Your task to perform on an android device: Go to network settings Image 0: 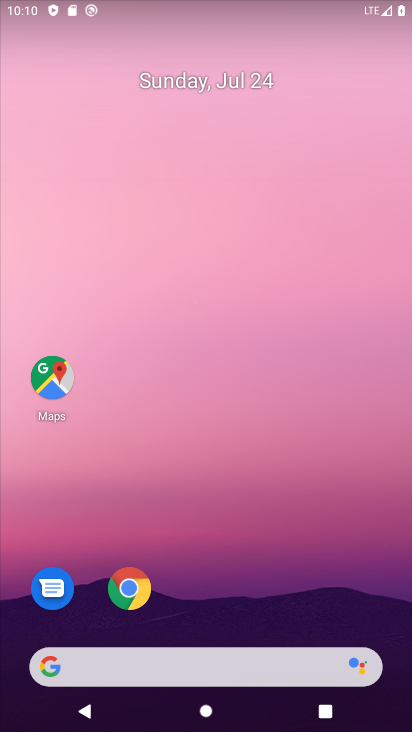
Step 0: drag from (252, 608) to (181, 63)
Your task to perform on an android device: Go to network settings Image 1: 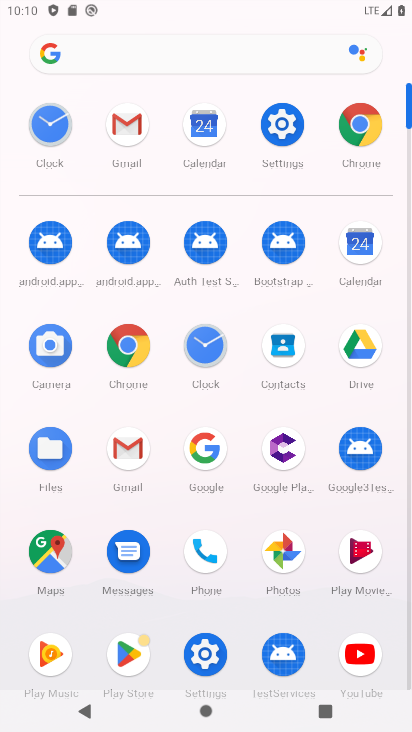
Step 1: click (272, 130)
Your task to perform on an android device: Go to network settings Image 2: 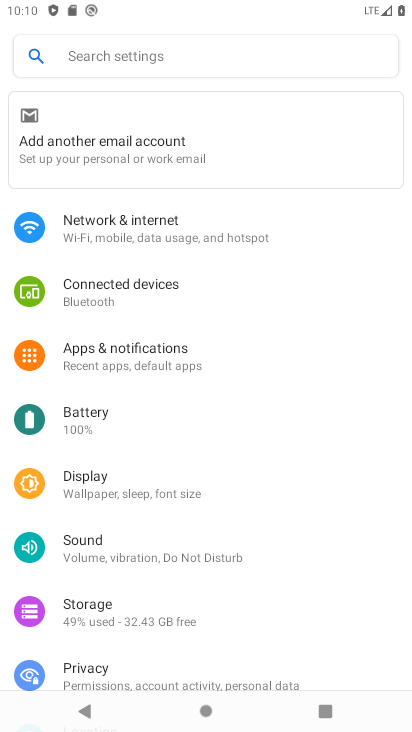
Step 2: click (268, 225)
Your task to perform on an android device: Go to network settings Image 3: 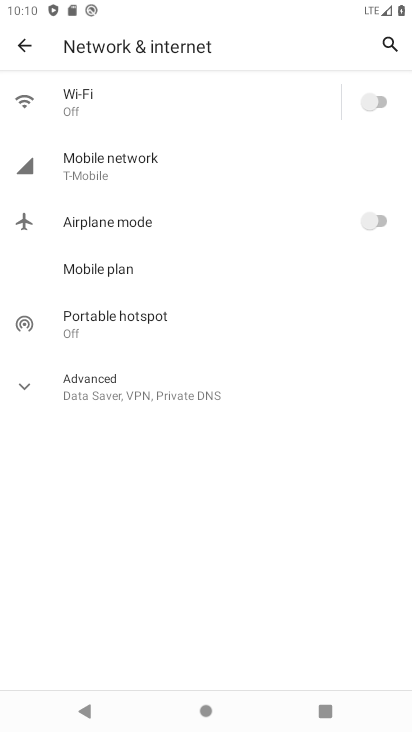
Step 3: task complete